Your task to perform on an android device: add a contact Image 0: 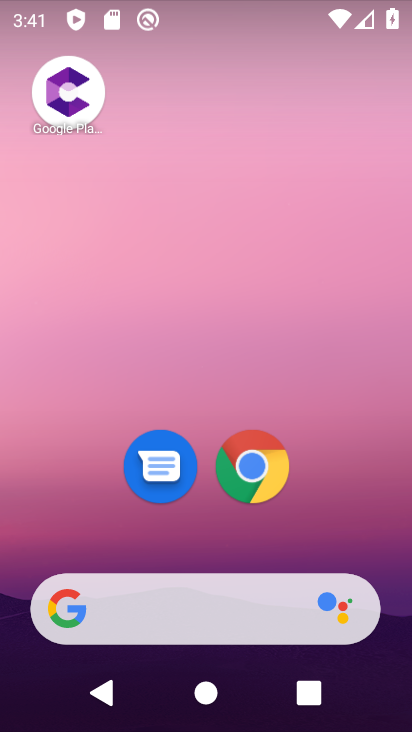
Step 0: drag from (321, 641) to (267, 110)
Your task to perform on an android device: add a contact Image 1: 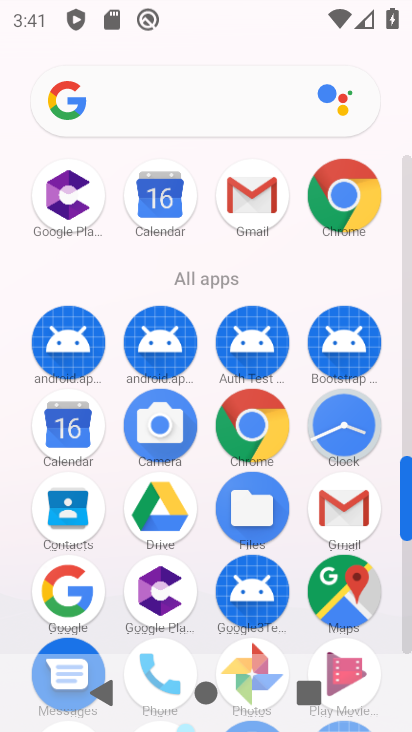
Step 1: click (174, 637)
Your task to perform on an android device: add a contact Image 2: 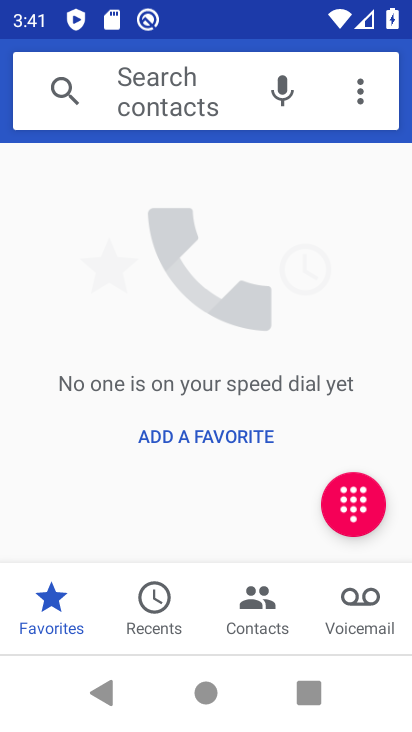
Step 2: click (244, 602)
Your task to perform on an android device: add a contact Image 3: 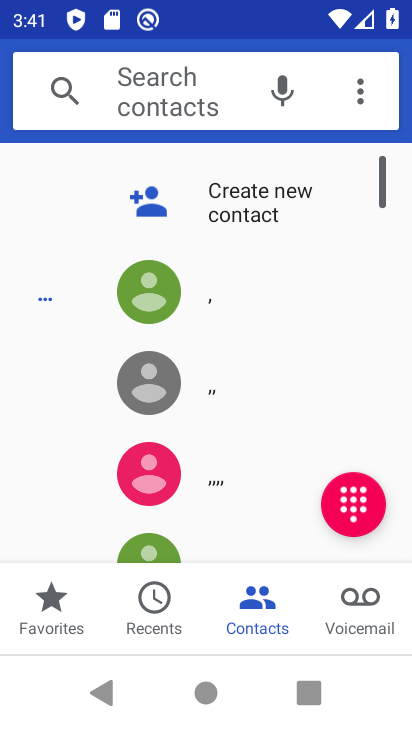
Step 3: click (225, 177)
Your task to perform on an android device: add a contact Image 4: 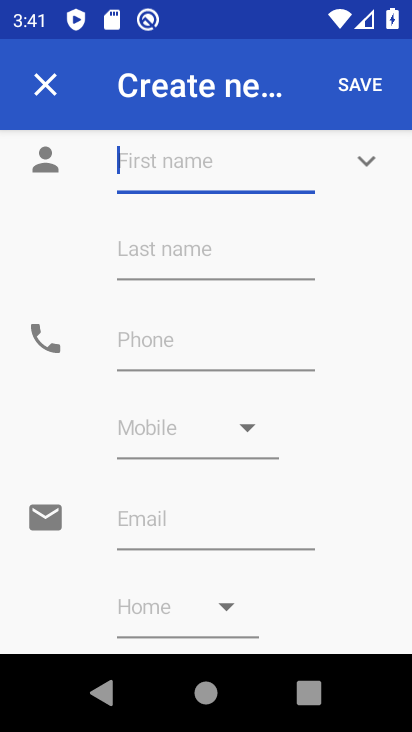
Step 4: click (185, 161)
Your task to perform on an android device: add a contact Image 5: 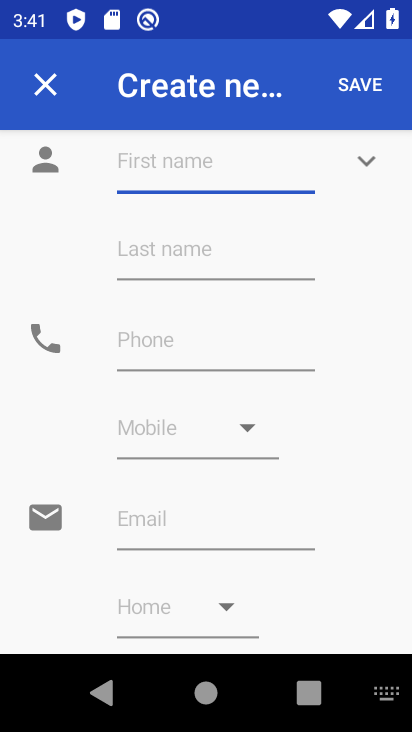
Step 5: click (387, 705)
Your task to perform on an android device: add a contact Image 6: 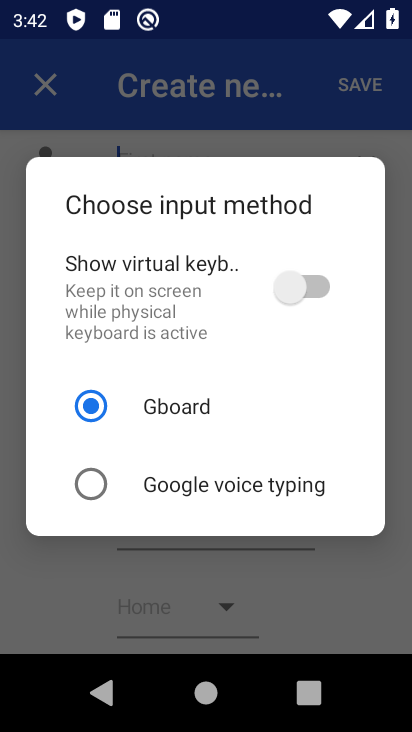
Step 6: click (305, 290)
Your task to perform on an android device: add a contact Image 7: 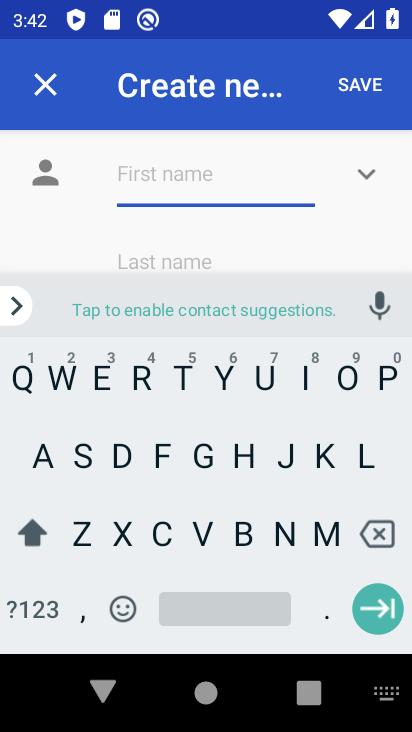
Step 7: click (375, 375)
Your task to perform on an android device: add a contact Image 8: 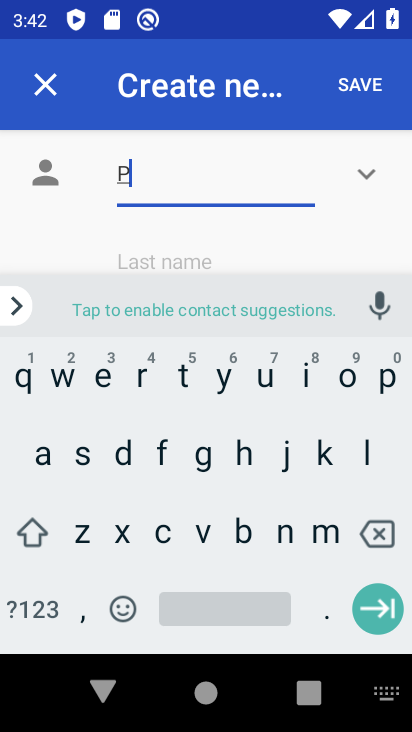
Step 8: click (35, 454)
Your task to perform on an android device: add a contact Image 9: 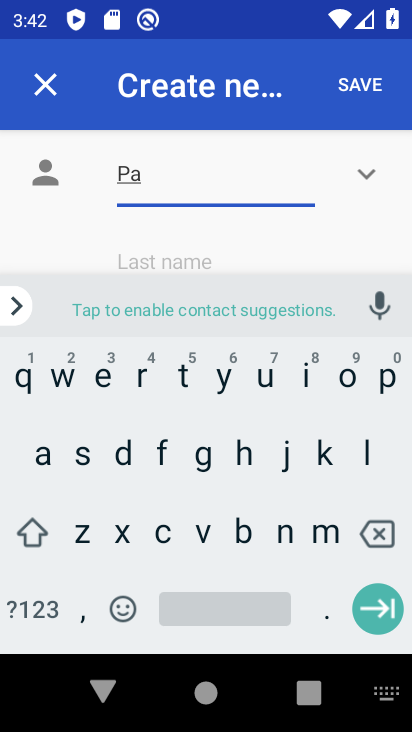
Step 9: click (218, 377)
Your task to perform on an android device: add a contact Image 10: 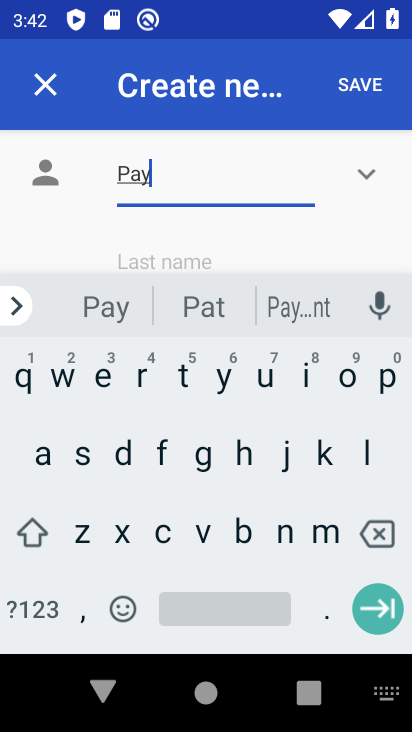
Step 10: click (37, 456)
Your task to perform on an android device: add a contact Image 11: 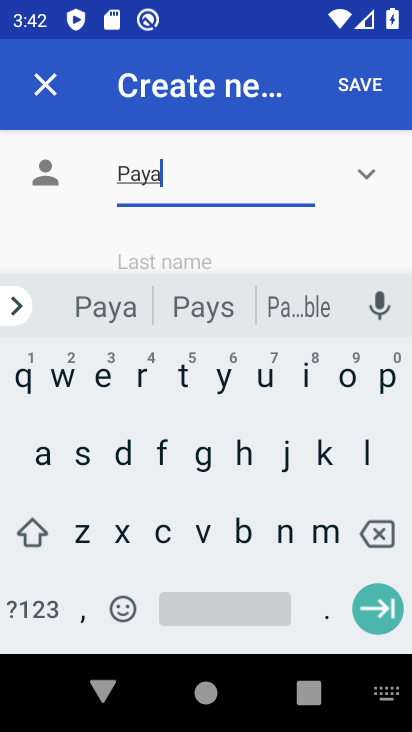
Step 11: click (367, 449)
Your task to perform on an android device: add a contact Image 12: 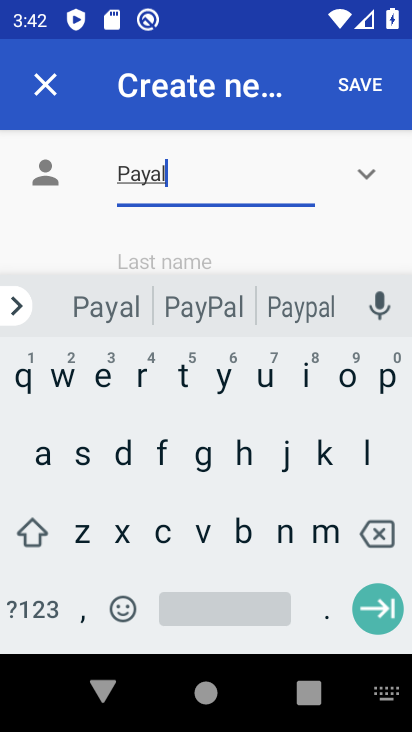
Step 12: click (234, 602)
Your task to perform on an android device: add a contact Image 13: 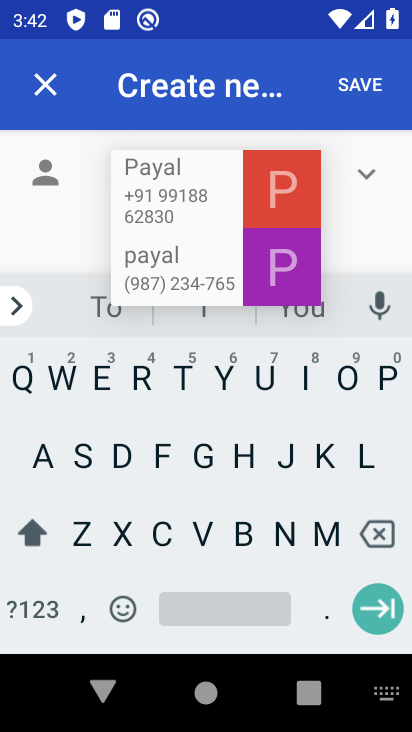
Step 13: click (326, 534)
Your task to perform on an android device: add a contact Image 14: 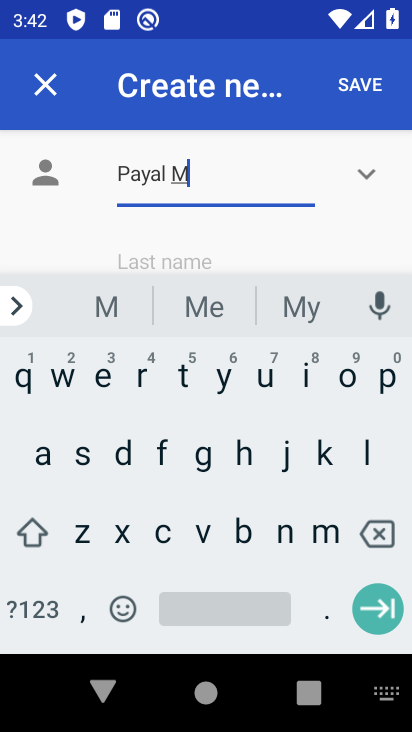
Step 14: click (298, 376)
Your task to perform on an android device: add a contact Image 15: 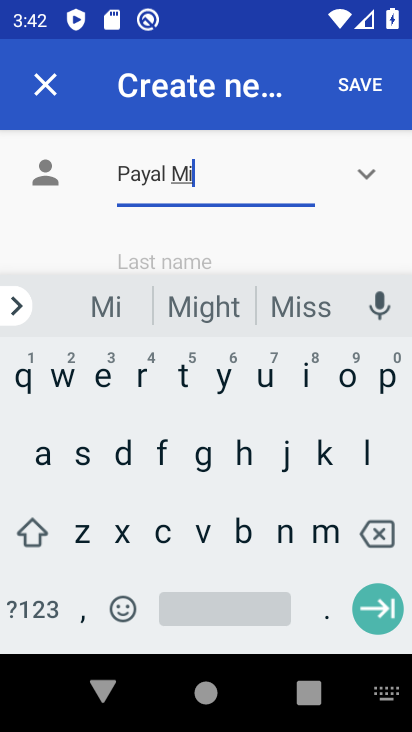
Step 15: click (77, 450)
Your task to perform on an android device: add a contact Image 16: 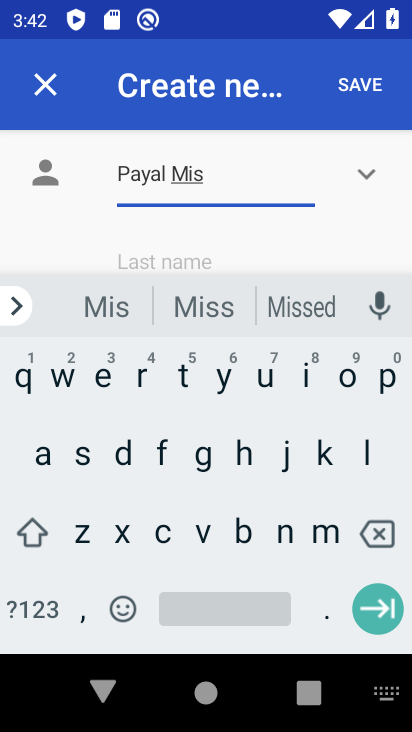
Step 16: click (239, 454)
Your task to perform on an android device: add a contact Image 17: 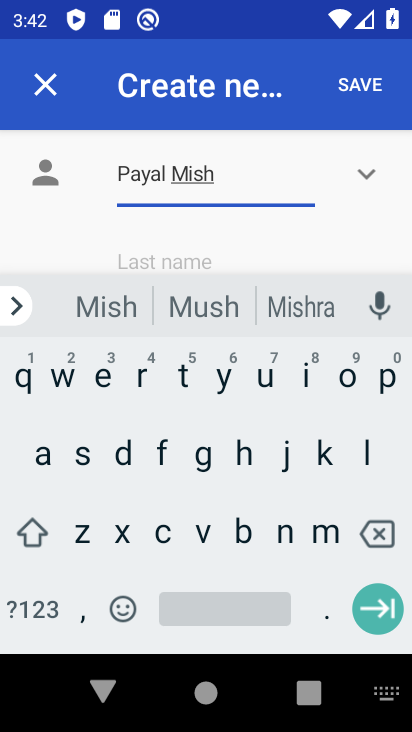
Step 17: click (135, 376)
Your task to perform on an android device: add a contact Image 18: 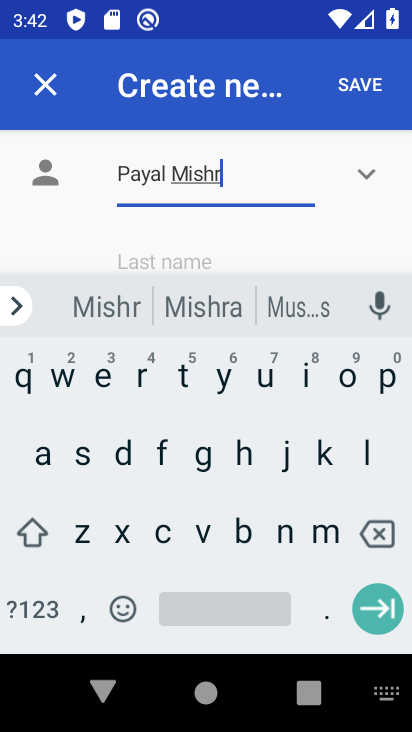
Step 18: click (37, 458)
Your task to perform on an android device: add a contact Image 19: 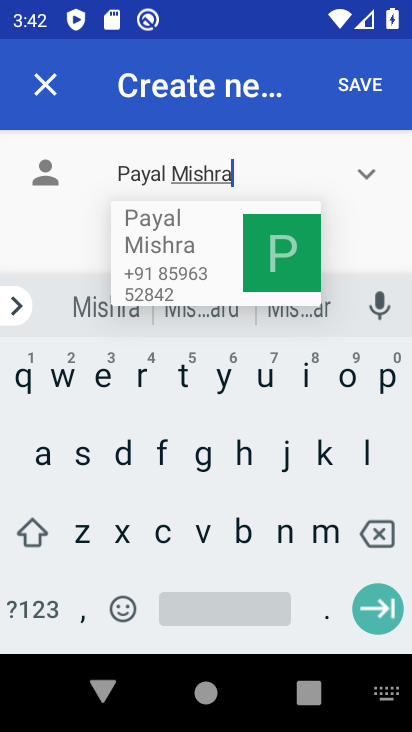
Step 19: click (228, 594)
Your task to perform on an android device: add a contact Image 20: 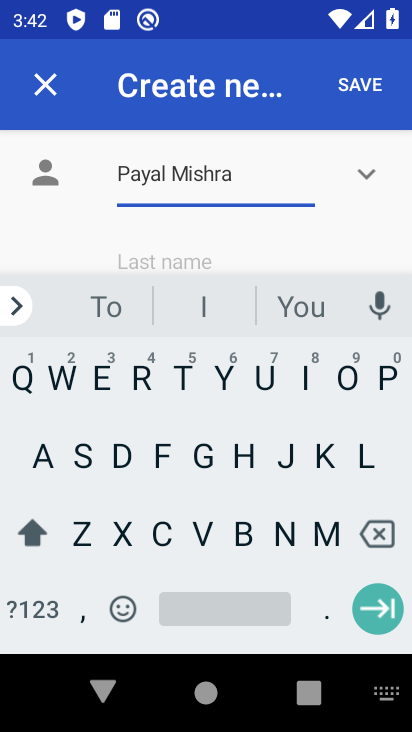
Step 20: drag from (178, 234) to (206, 122)
Your task to perform on an android device: add a contact Image 21: 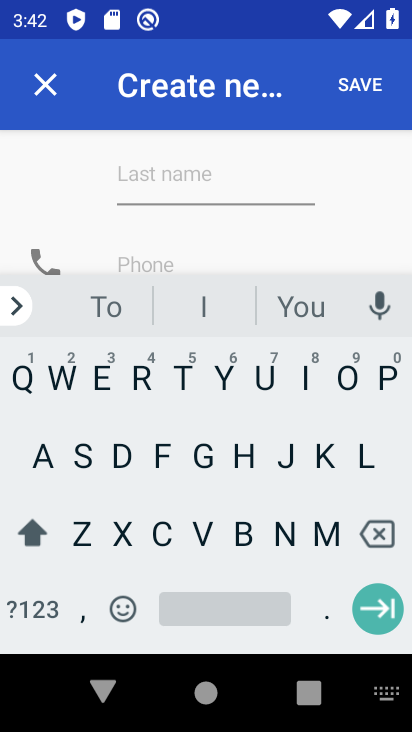
Step 21: click (133, 265)
Your task to perform on an android device: add a contact Image 22: 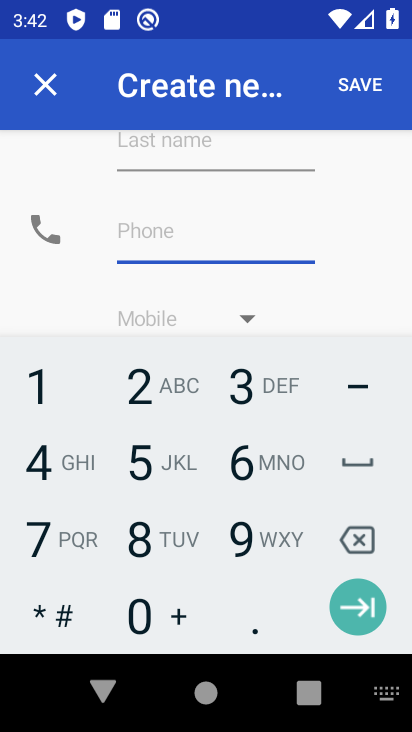
Step 22: click (244, 528)
Your task to perform on an android device: add a contact Image 23: 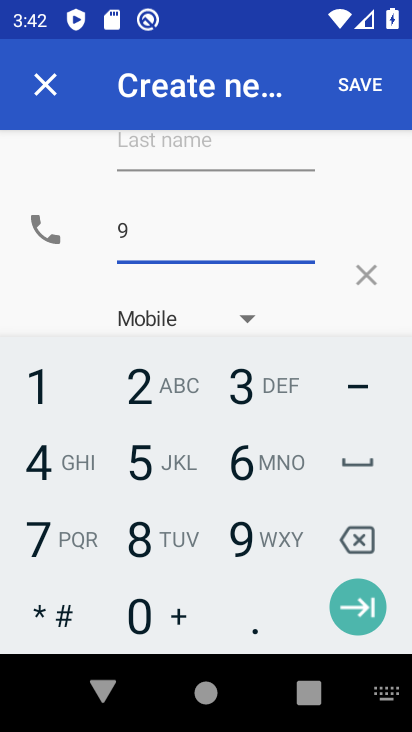
Step 23: click (244, 521)
Your task to perform on an android device: add a contact Image 24: 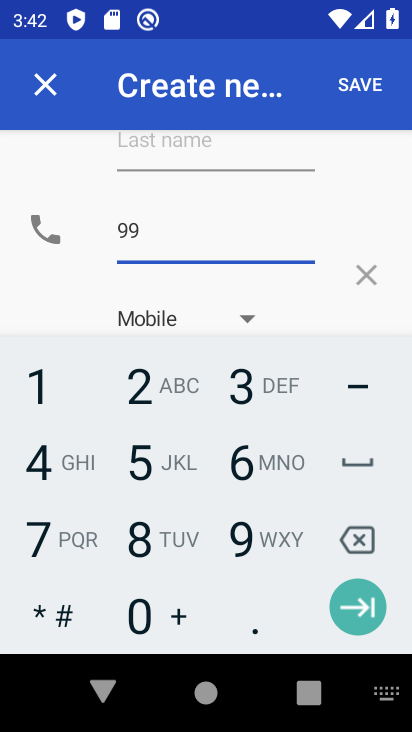
Step 24: click (44, 384)
Your task to perform on an android device: add a contact Image 25: 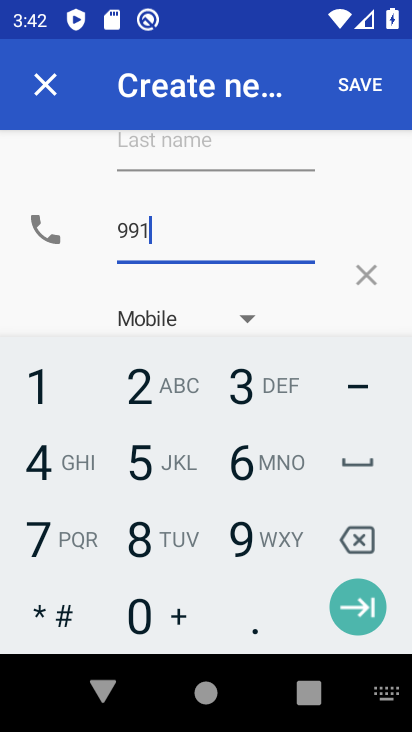
Step 25: click (242, 542)
Your task to perform on an android device: add a contact Image 26: 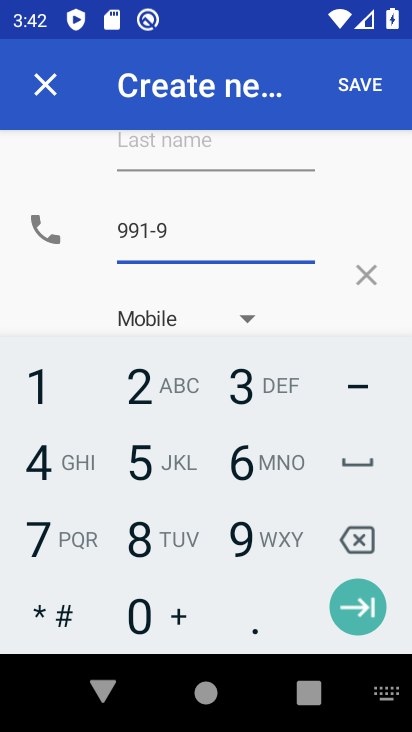
Step 26: click (357, 539)
Your task to perform on an android device: add a contact Image 27: 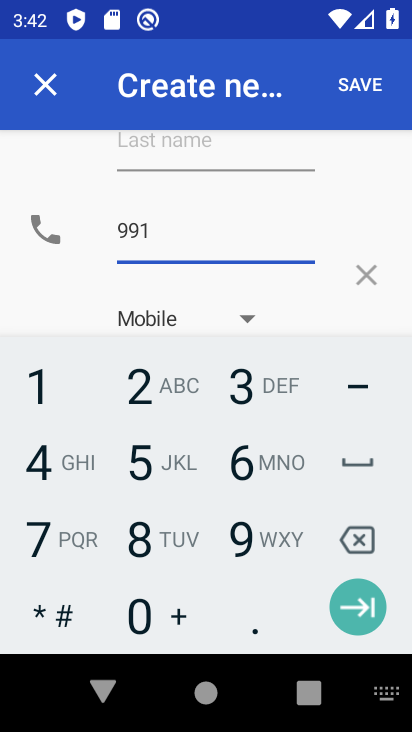
Step 27: click (357, 537)
Your task to perform on an android device: add a contact Image 28: 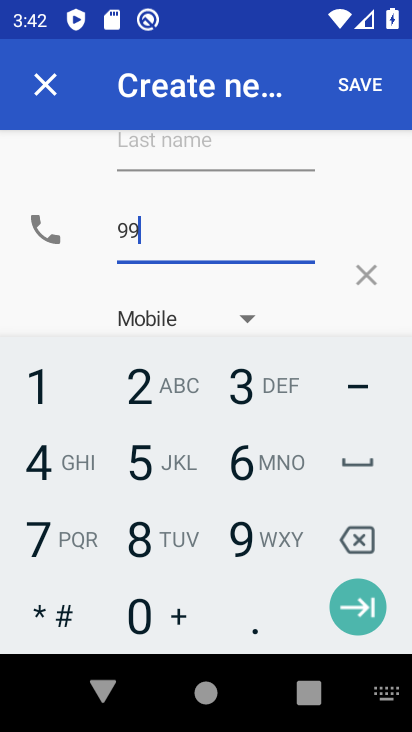
Step 28: click (357, 537)
Your task to perform on an android device: add a contact Image 29: 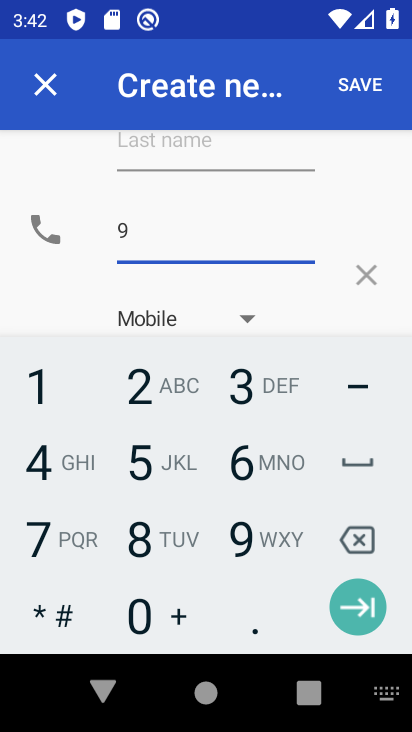
Step 29: click (357, 536)
Your task to perform on an android device: add a contact Image 30: 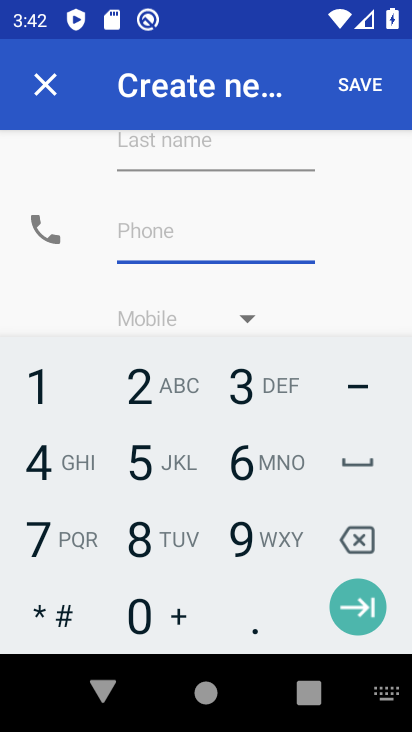
Step 30: click (174, 617)
Your task to perform on an android device: add a contact Image 31: 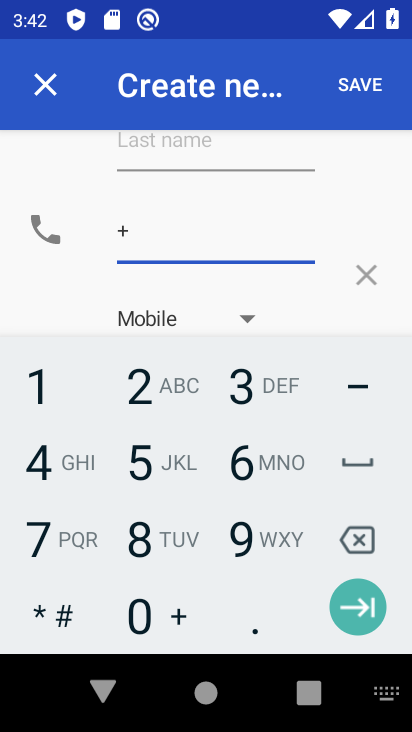
Step 31: click (243, 538)
Your task to perform on an android device: add a contact Image 32: 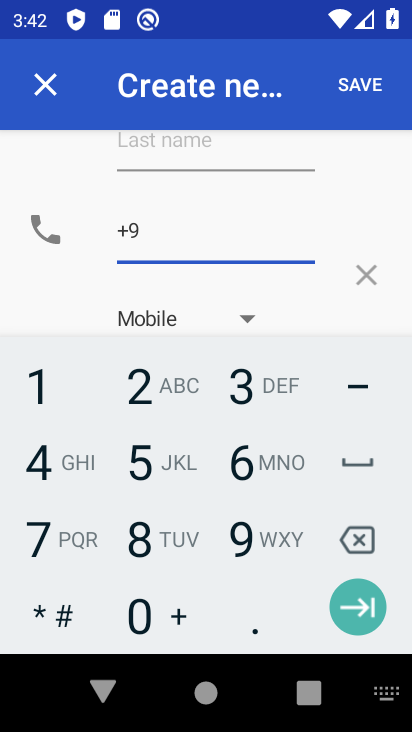
Step 32: click (32, 382)
Your task to perform on an android device: add a contact Image 33: 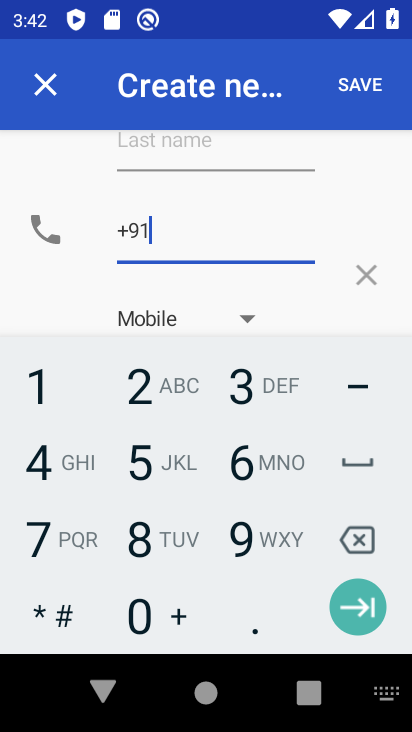
Step 33: click (248, 533)
Your task to perform on an android device: add a contact Image 34: 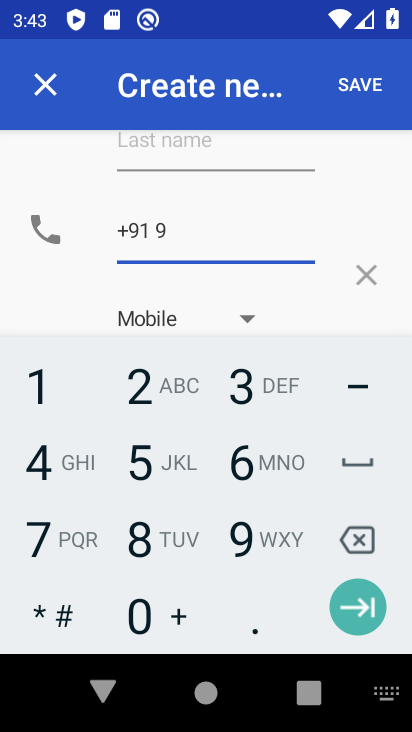
Step 34: click (49, 379)
Your task to perform on an android device: add a contact Image 35: 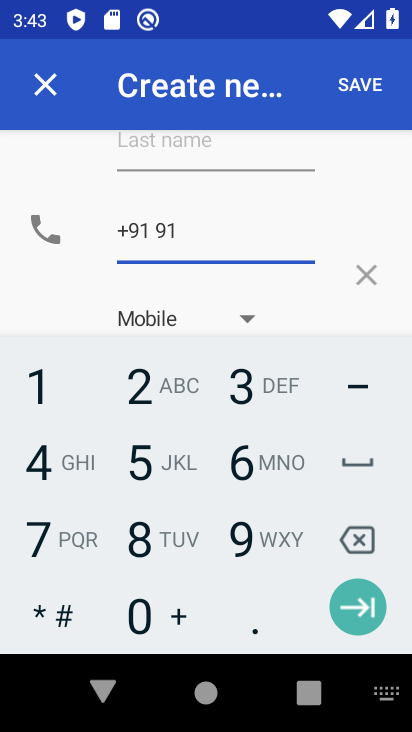
Step 35: click (352, 536)
Your task to perform on an android device: add a contact Image 36: 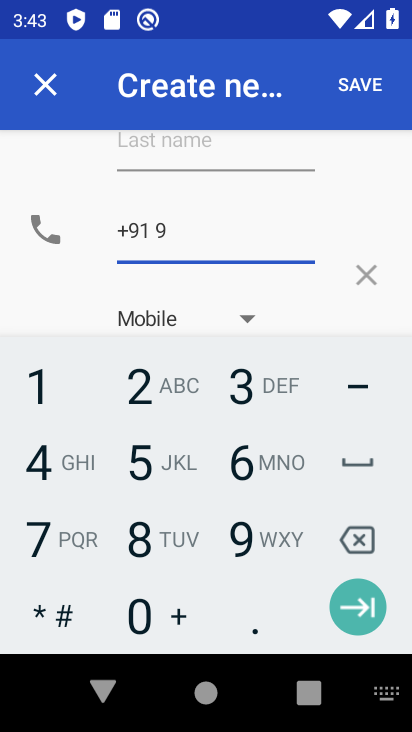
Step 36: click (248, 535)
Your task to perform on an android device: add a contact Image 37: 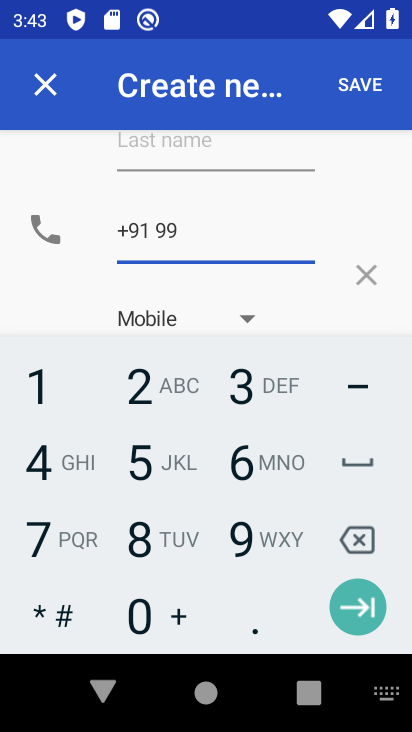
Step 37: click (44, 387)
Your task to perform on an android device: add a contact Image 38: 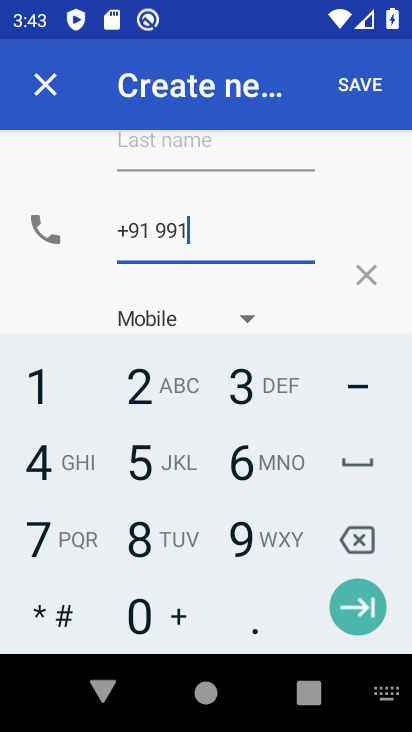
Step 38: click (246, 544)
Your task to perform on an android device: add a contact Image 39: 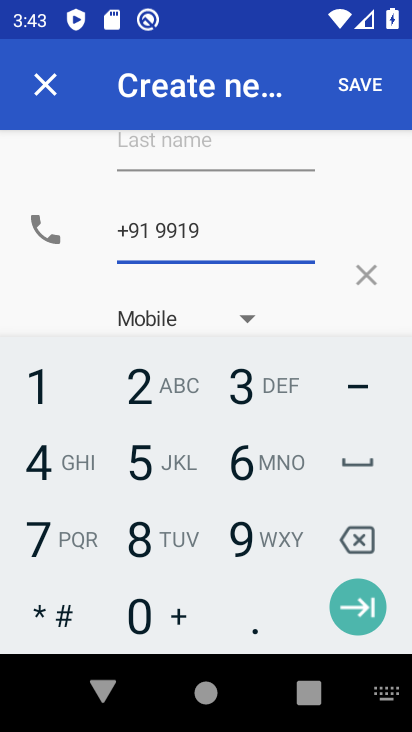
Step 39: click (131, 450)
Your task to perform on an android device: add a contact Image 40: 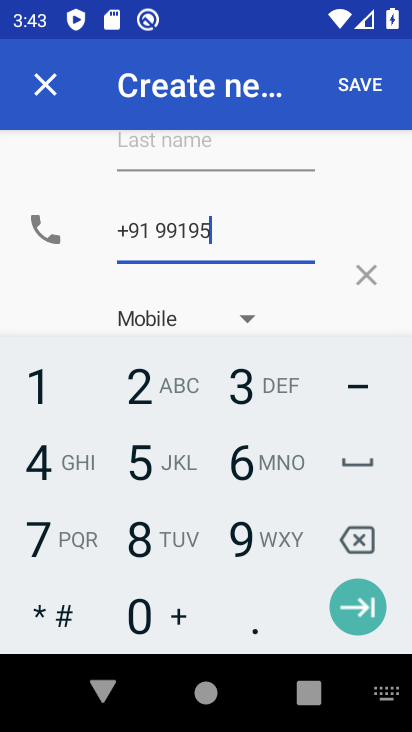
Step 40: click (57, 474)
Your task to perform on an android device: add a contact Image 41: 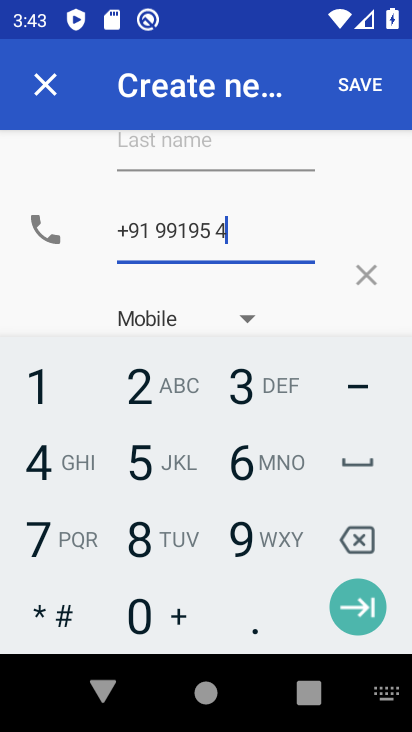
Step 41: click (149, 384)
Your task to perform on an android device: add a contact Image 42: 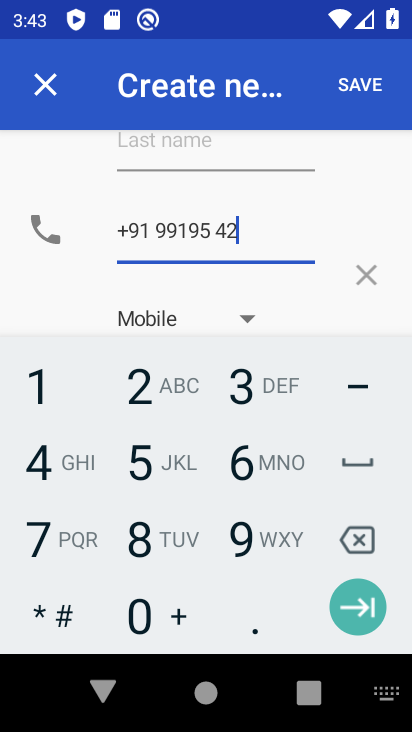
Step 42: click (151, 461)
Your task to perform on an android device: add a contact Image 43: 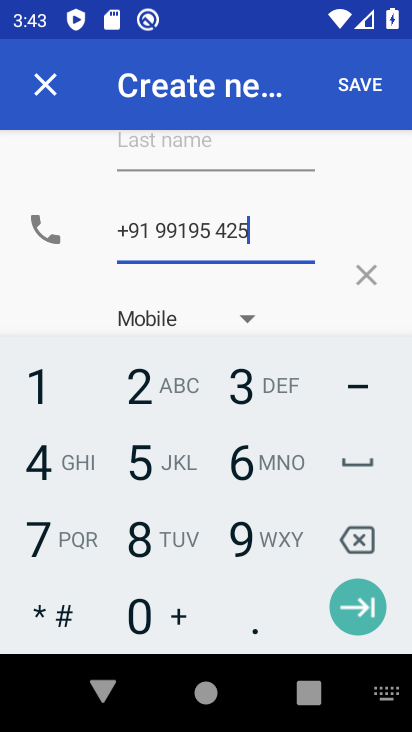
Step 43: click (244, 376)
Your task to perform on an android device: add a contact Image 44: 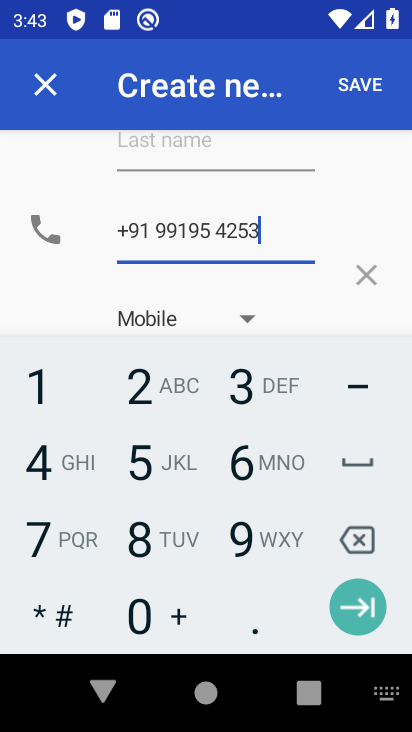
Step 44: click (149, 467)
Your task to perform on an android device: add a contact Image 45: 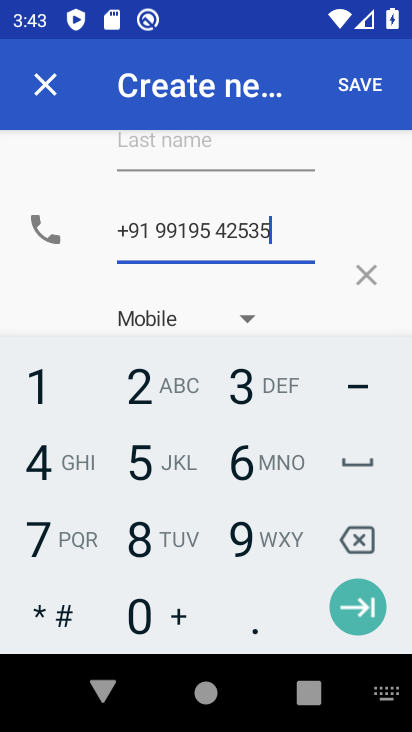
Step 45: click (358, 81)
Your task to perform on an android device: add a contact Image 46: 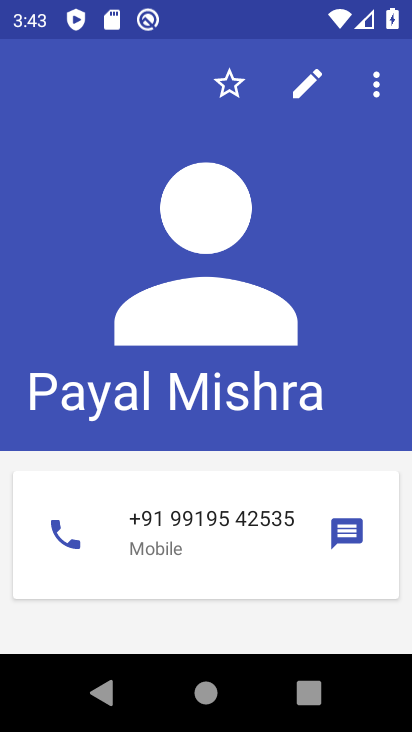
Step 46: task complete